Your task to perform on an android device: turn off data saver in the chrome app Image 0: 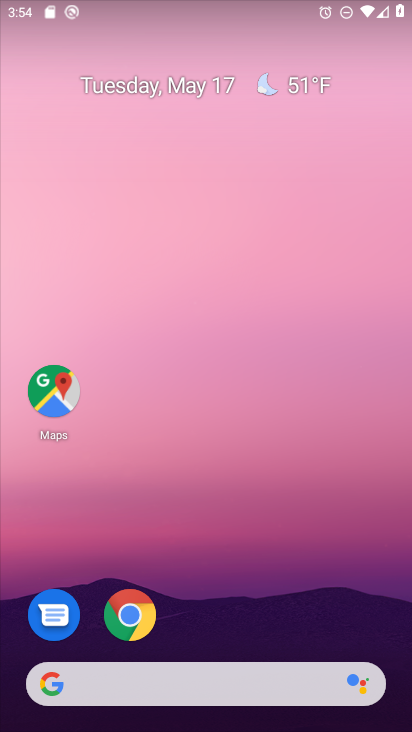
Step 0: press home button
Your task to perform on an android device: turn off data saver in the chrome app Image 1: 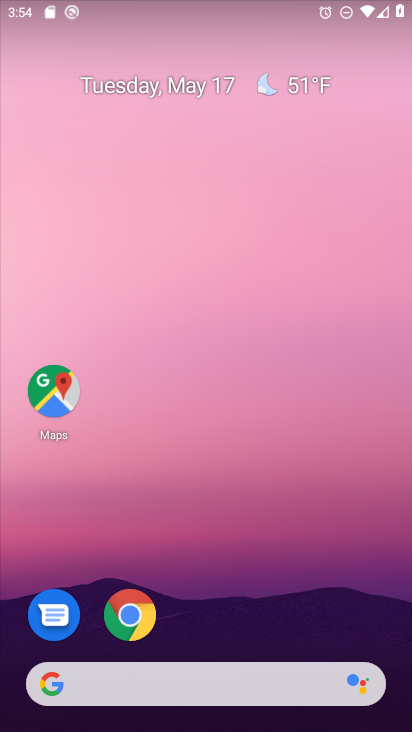
Step 1: click (128, 608)
Your task to perform on an android device: turn off data saver in the chrome app Image 2: 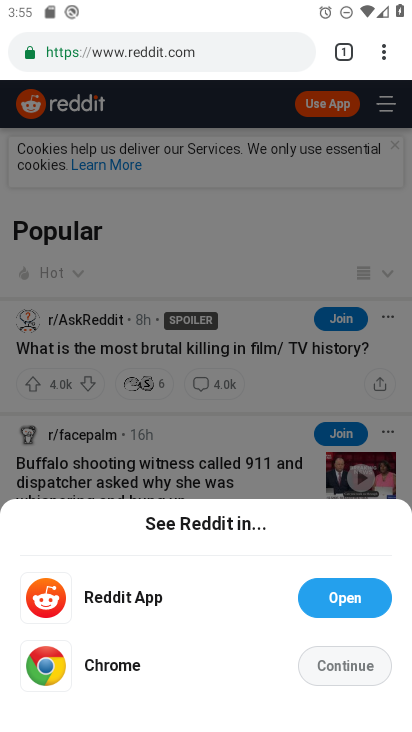
Step 2: click (346, 660)
Your task to perform on an android device: turn off data saver in the chrome app Image 3: 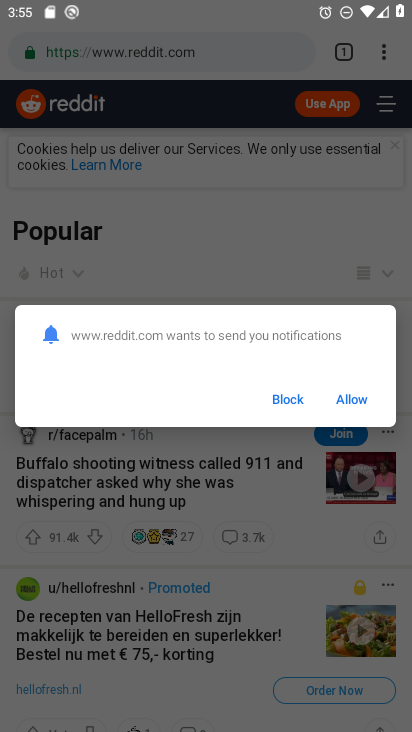
Step 3: click (350, 393)
Your task to perform on an android device: turn off data saver in the chrome app Image 4: 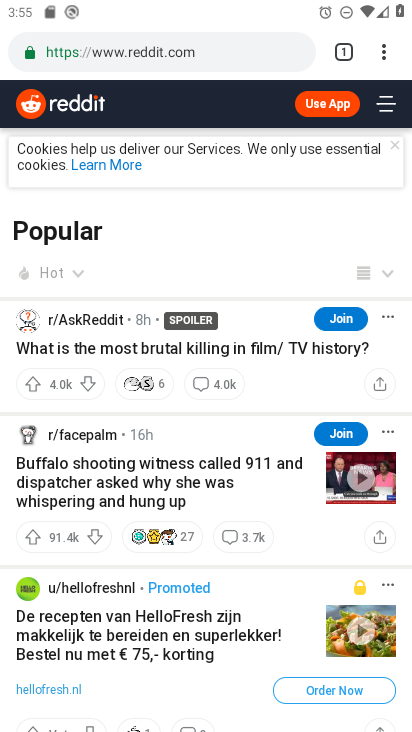
Step 4: click (383, 49)
Your task to perform on an android device: turn off data saver in the chrome app Image 5: 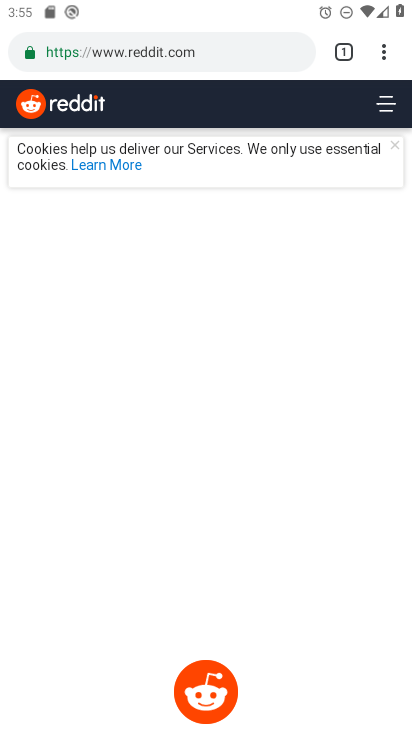
Step 5: click (380, 49)
Your task to perform on an android device: turn off data saver in the chrome app Image 6: 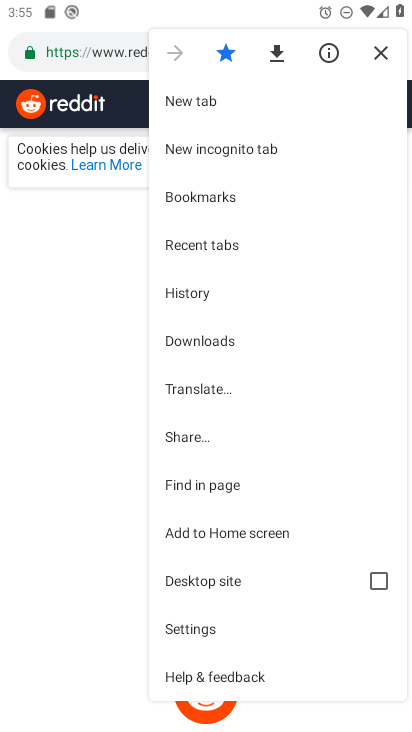
Step 6: click (222, 623)
Your task to perform on an android device: turn off data saver in the chrome app Image 7: 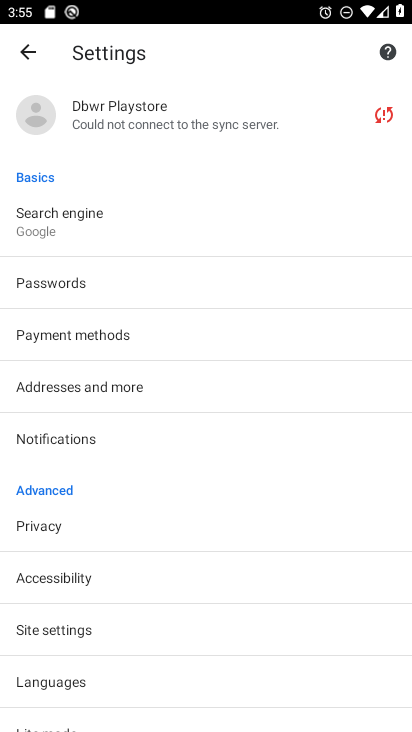
Step 7: drag from (153, 695) to (154, 280)
Your task to perform on an android device: turn off data saver in the chrome app Image 8: 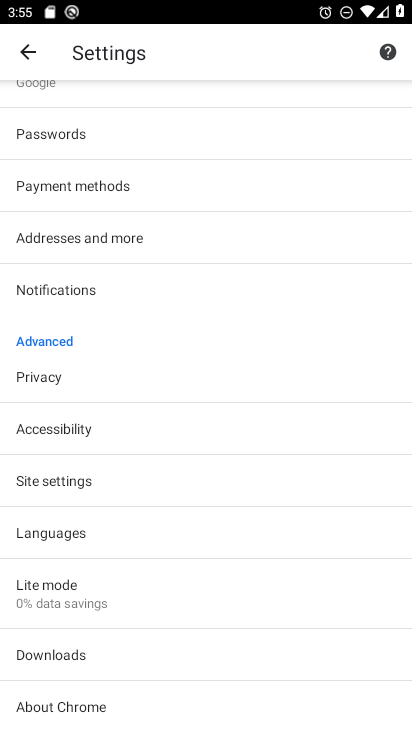
Step 8: click (124, 591)
Your task to perform on an android device: turn off data saver in the chrome app Image 9: 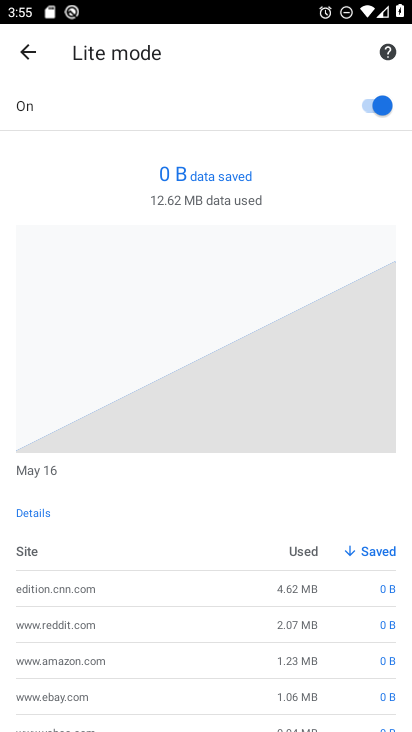
Step 9: task complete